Your task to perform on an android device: Open maps Image 0: 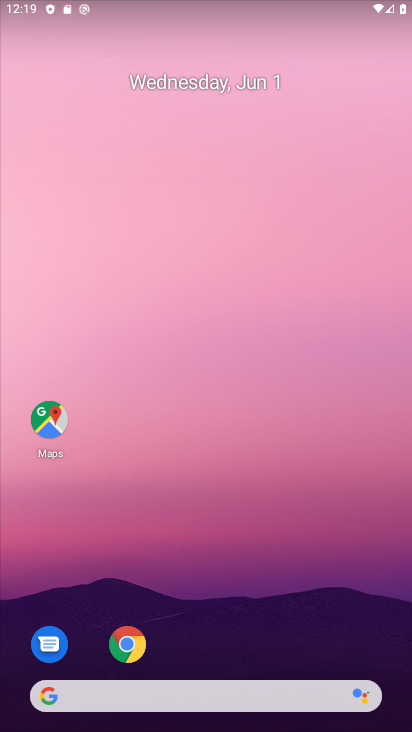
Step 0: click (58, 415)
Your task to perform on an android device: Open maps Image 1: 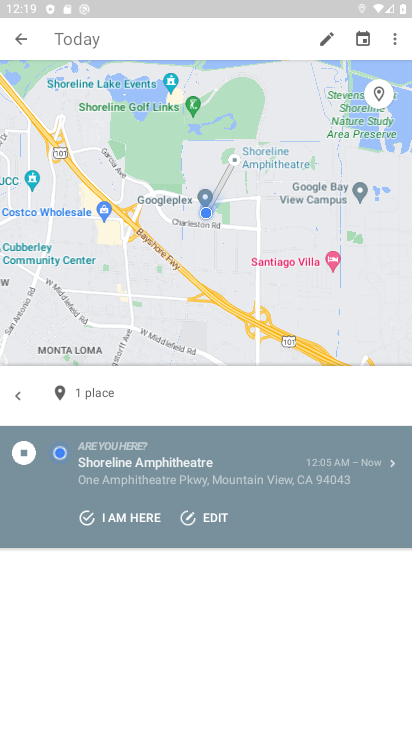
Step 1: task complete